Your task to perform on an android device: Open settings Image 0: 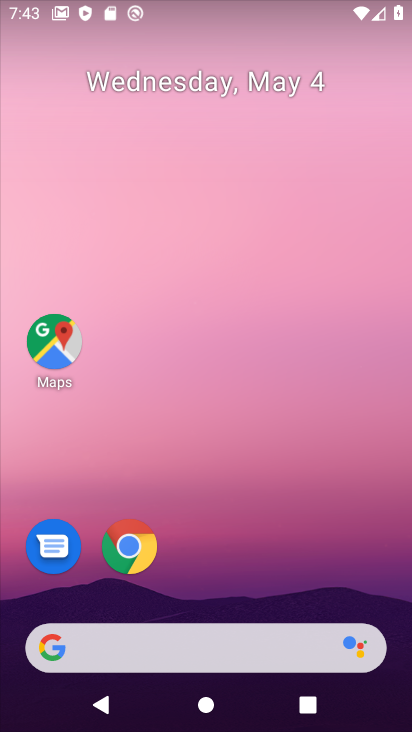
Step 0: click (209, 9)
Your task to perform on an android device: Open settings Image 1: 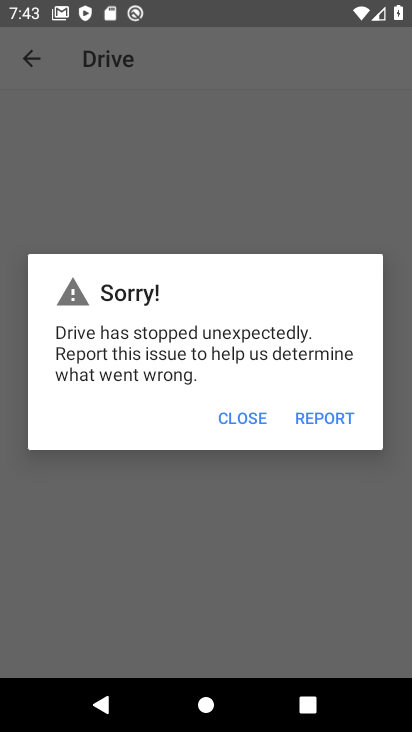
Step 1: press home button
Your task to perform on an android device: Open settings Image 2: 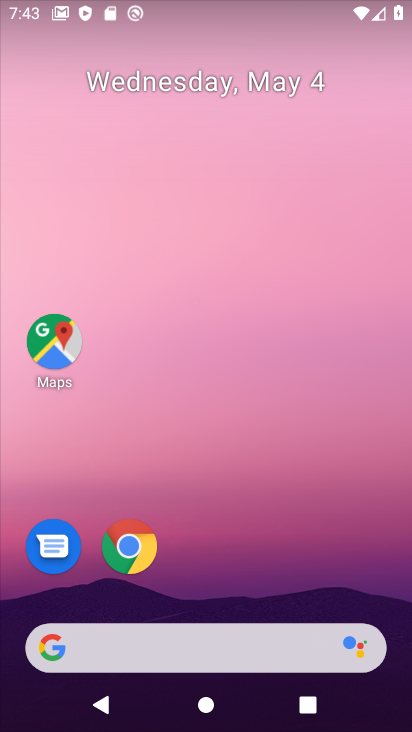
Step 2: drag from (367, 7) to (400, 564)
Your task to perform on an android device: Open settings Image 3: 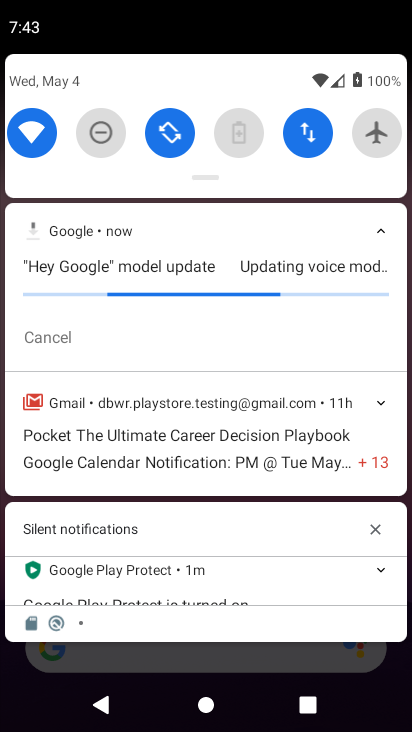
Step 3: drag from (333, 216) to (324, 628)
Your task to perform on an android device: Open settings Image 4: 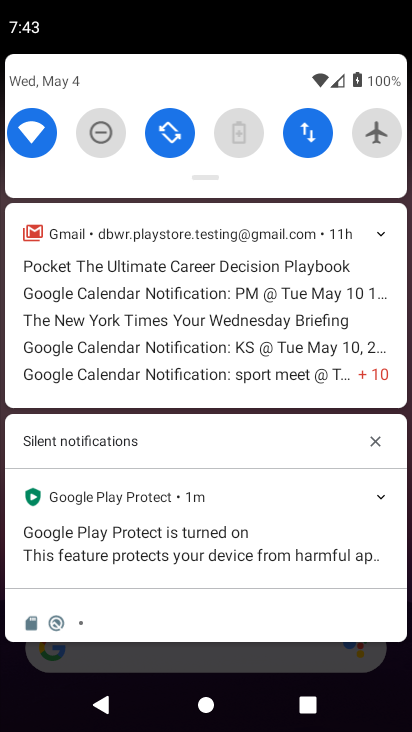
Step 4: drag from (317, 162) to (342, 628)
Your task to perform on an android device: Open settings Image 5: 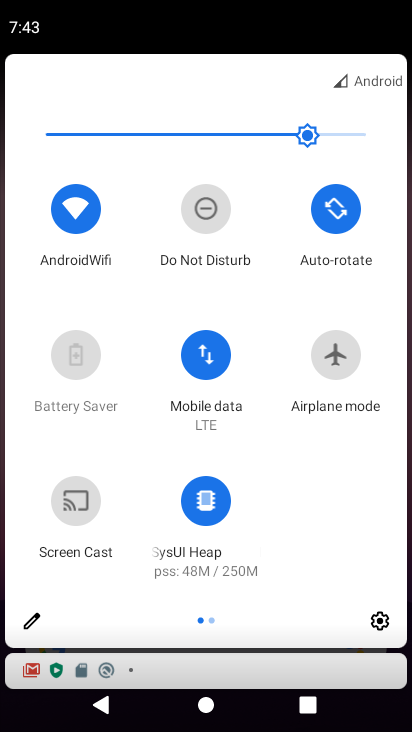
Step 5: click (380, 620)
Your task to perform on an android device: Open settings Image 6: 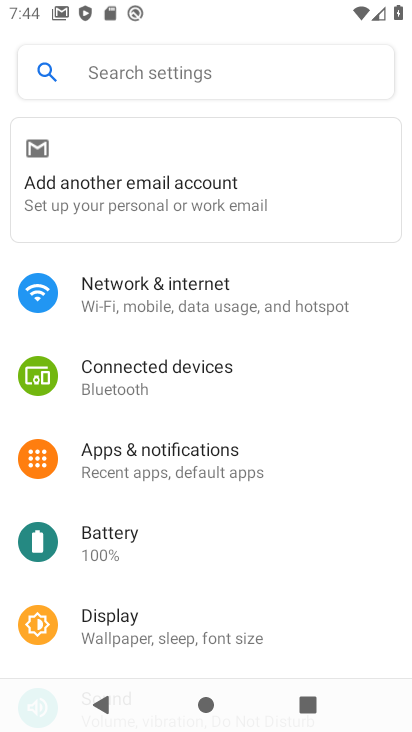
Step 6: task complete